Your task to perform on an android device: Open Google Chrome Image 0: 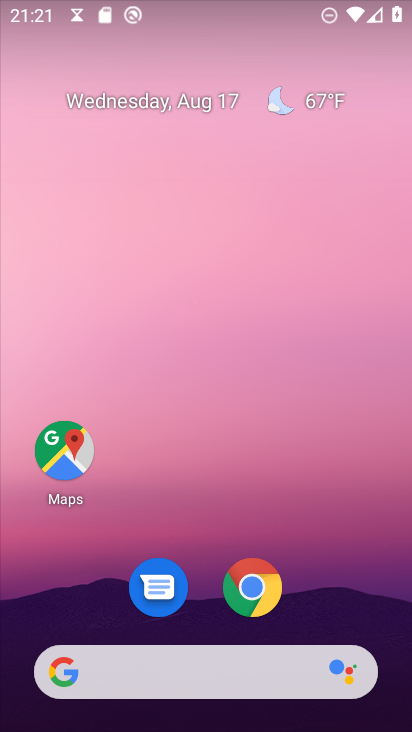
Step 0: click (253, 604)
Your task to perform on an android device: Open Google Chrome Image 1: 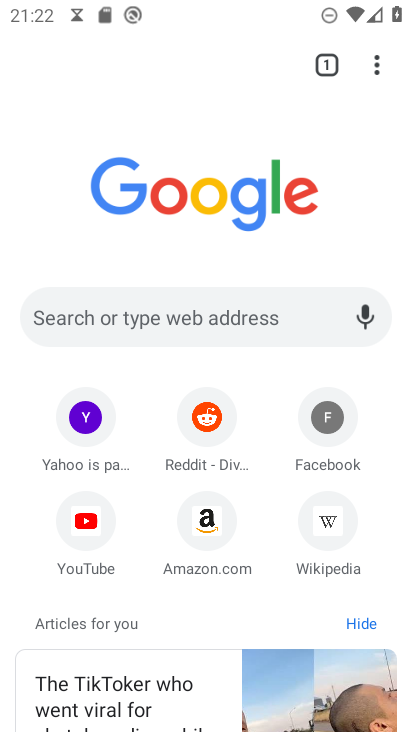
Step 1: task complete